Your task to perform on an android device: Open Google Chrome Image 0: 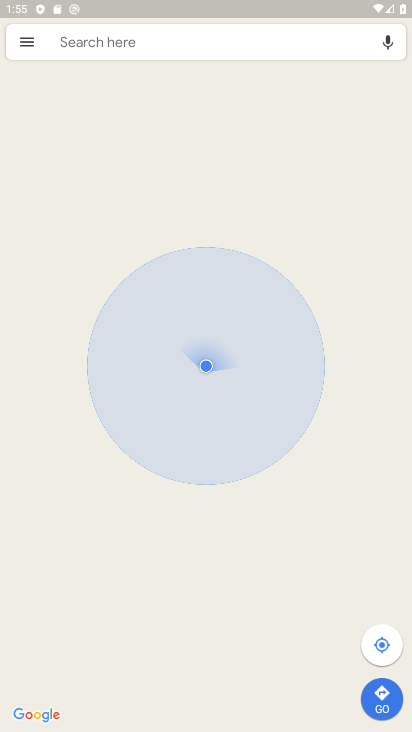
Step 0: press back button
Your task to perform on an android device: Open Google Chrome Image 1: 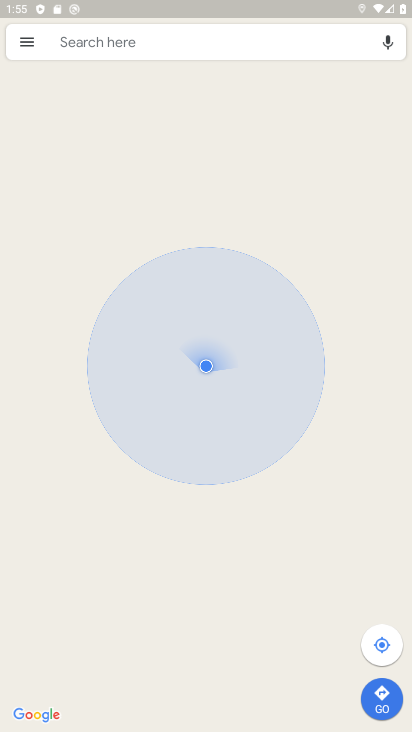
Step 1: press back button
Your task to perform on an android device: Open Google Chrome Image 2: 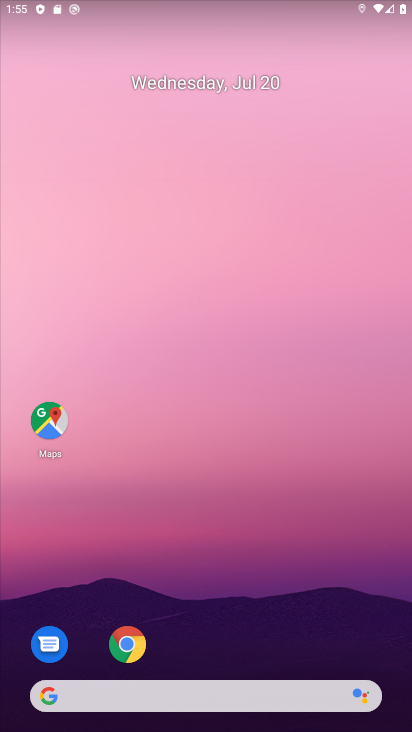
Step 2: press back button
Your task to perform on an android device: Open Google Chrome Image 3: 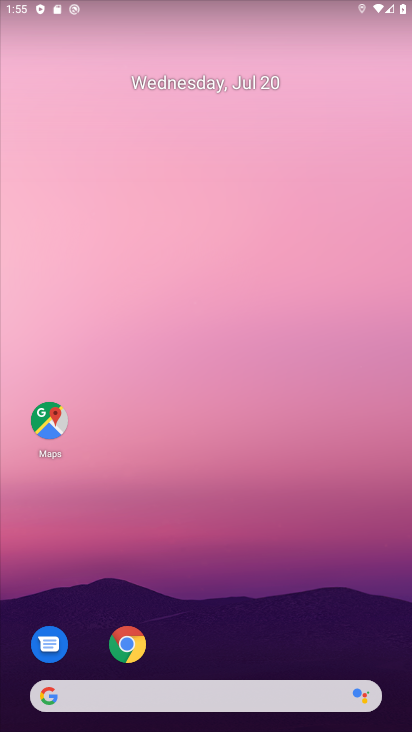
Step 3: click (116, 647)
Your task to perform on an android device: Open Google Chrome Image 4: 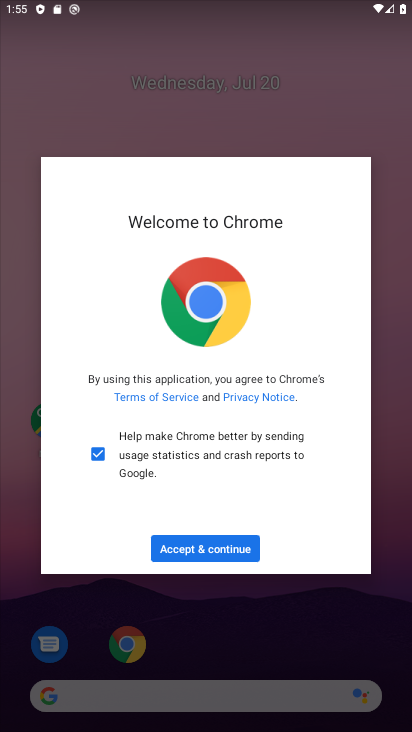
Step 4: click (199, 551)
Your task to perform on an android device: Open Google Chrome Image 5: 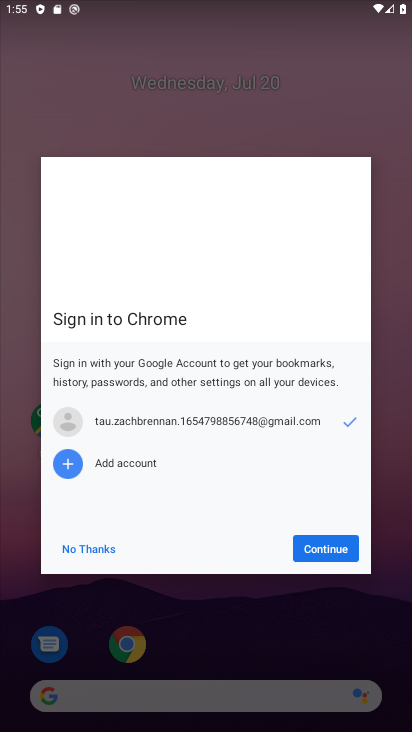
Step 5: click (330, 544)
Your task to perform on an android device: Open Google Chrome Image 6: 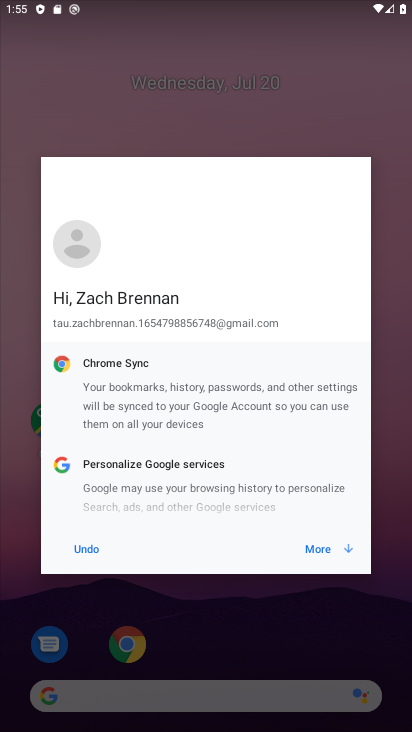
Step 6: click (330, 544)
Your task to perform on an android device: Open Google Chrome Image 7: 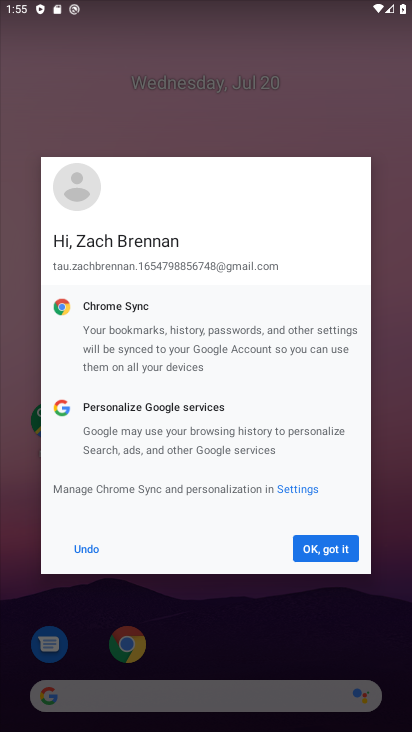
Step 7: click (330, 544)
Your task to perform on an android device: Open Google Chrome Image 8: 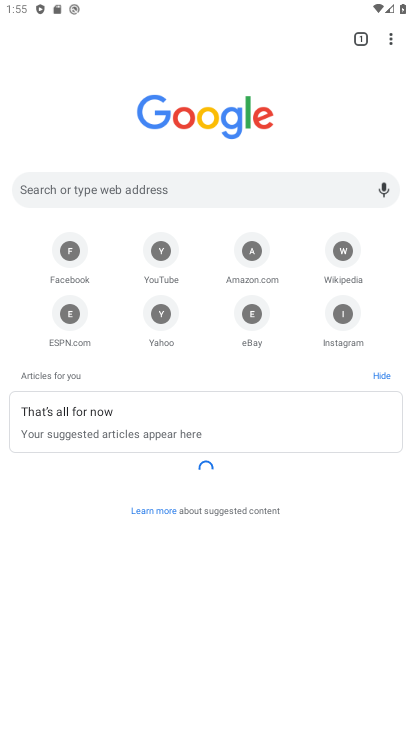
Step 8: task complete